Your task to perform on an android device: turn off data saver in the chrome app Image 0: 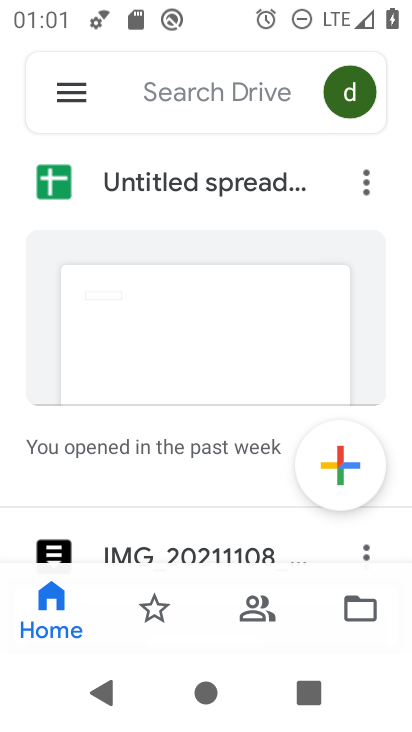
Step 0: press home button
Your task to perform on an android device: turn off data saver in the chrome app Image 1: 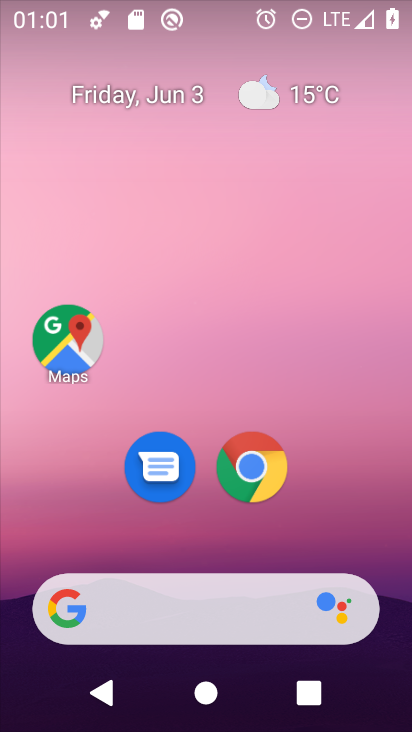
Step 1: click (256, 465)
Your task to perform on an android device: turn off data saver in the chrome app Image 2: 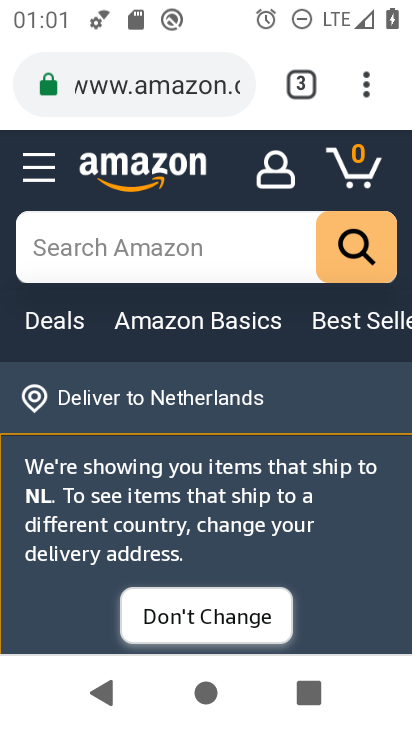
Step 2: click (364, 94)
Your task to perform on an android device: turn off data saver in the chrome app Image 3: 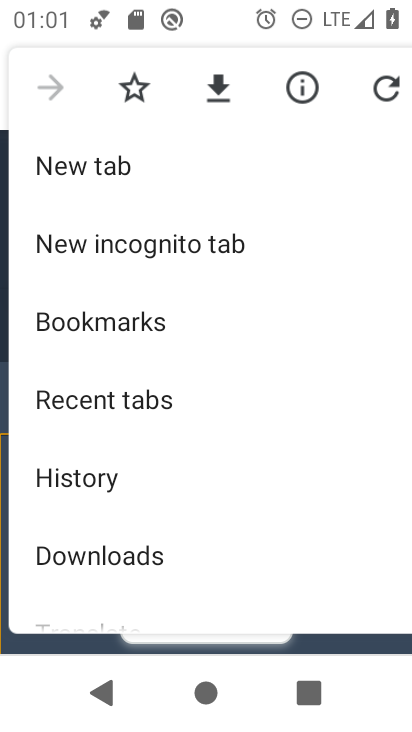
Step 3: drag from (219, 549) to (303, 173)
Your task to perform on an android device: turn off data saver in the chrome app Image 4: 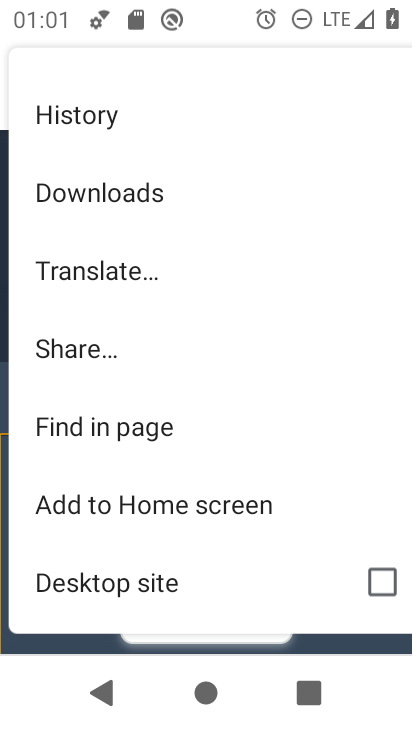
Step 4: drag from (294, 561) to (313, 155)
Your task to perform on an android device: turn off data saver in the chrome app Image 5: 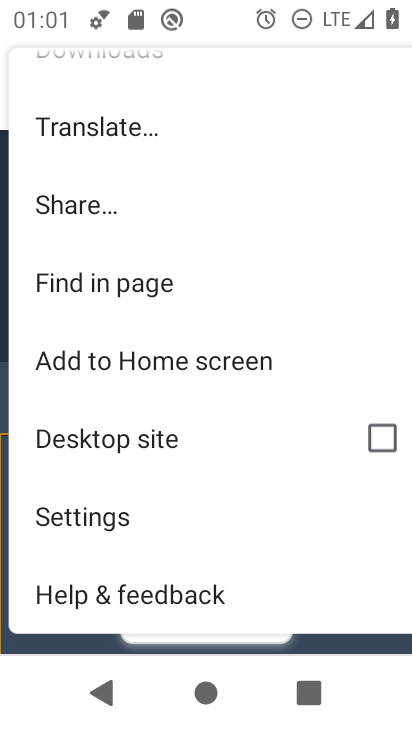
Step 5: click (92, 516)
Your task to perform on an android device: turn off data saver in the chrome app Image 6: 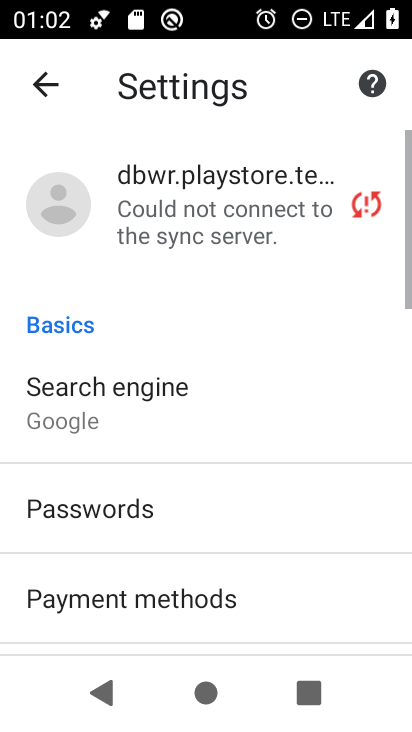
Step 6: drag from (270, 560) to (216, 1)
Your task to perform on an android device: turn off data saver in the chrome app Image 7: 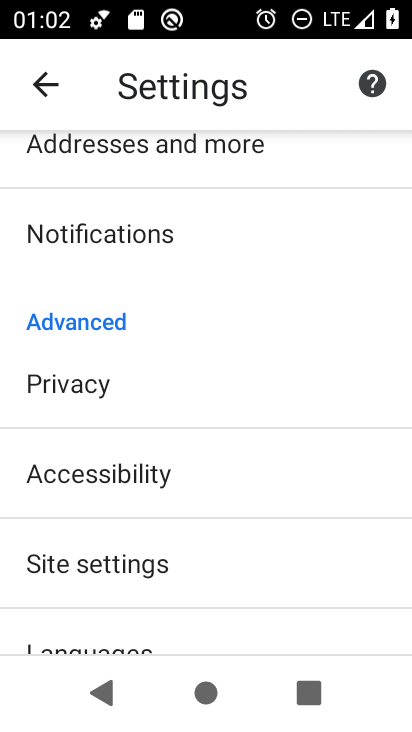
Step 7: drag from (209, 561) to (225, 206)
Your task to perform on an android device: turn off data saver in the chrome app Image 8: 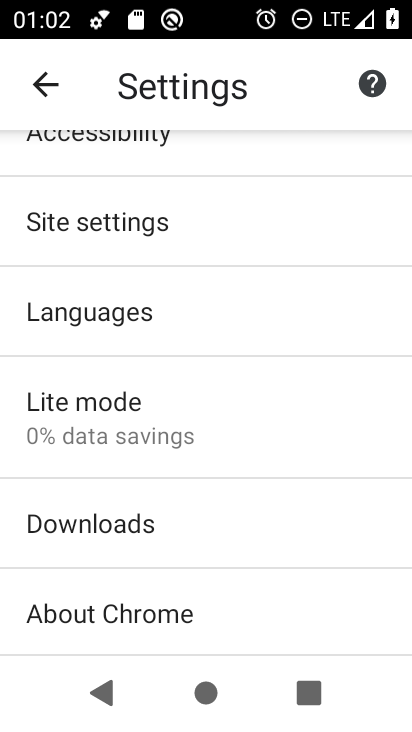
Step 8: click (121, 403)
Your task to perform on an android device: turn off data saver in the chrome app Image 9: 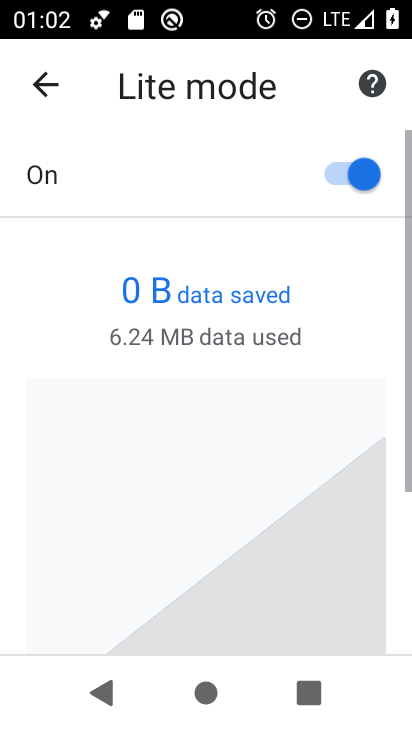
Step 9: click (327, 169)
Your task to perform on an android device: turn off data saver in the chrome app Image 10: 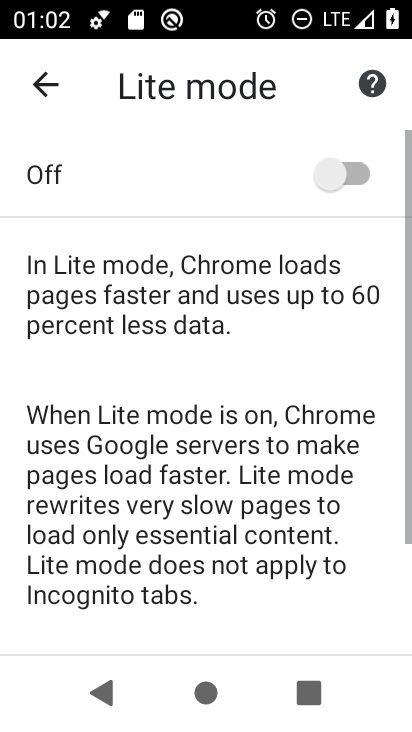
Step 10: task complete